Your task to perform on an android device: see creations saved in the google photos Image 0: 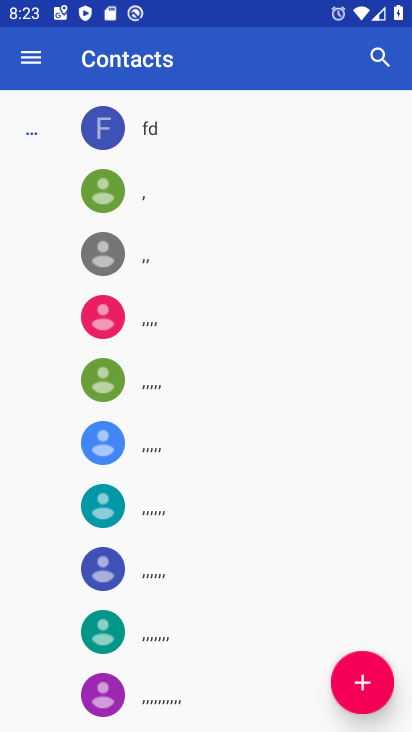
Step 0: press home button
Your task to perform on an android device: see creations saved in the google photos Image 1: 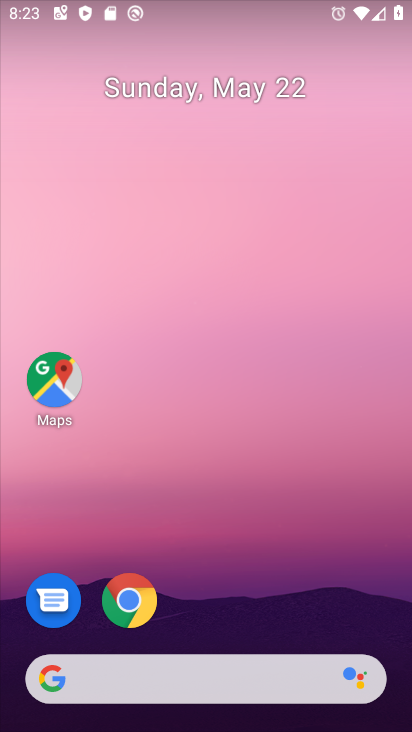
Step 1: drag from (221, 682) to (192, 1)
Your task to perform on an android device: see creations saved in the google photos Image 2: 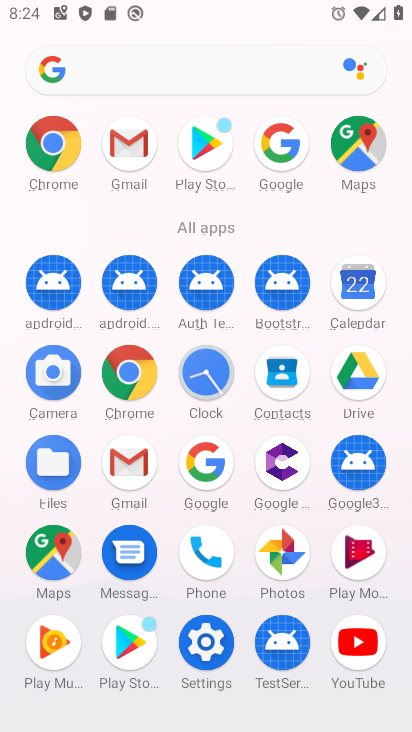
Step 2: click (300, 575)
Your task to perform on an android device: see creations saved in the google photos Image 3: 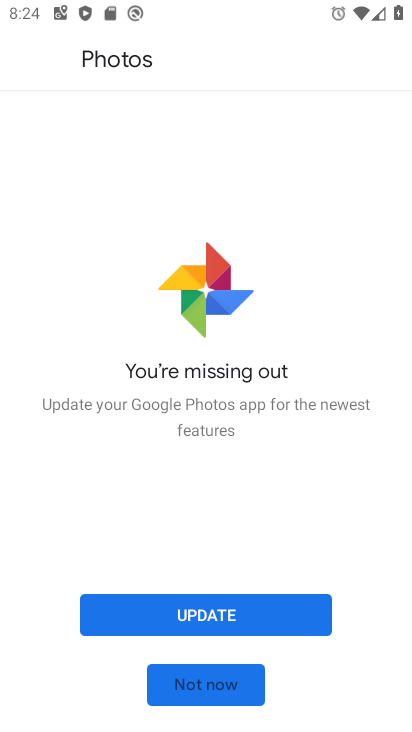
Step 3: click (216, 694)
Your task to perform on an android device: see creations saved in the google photos Image 4: 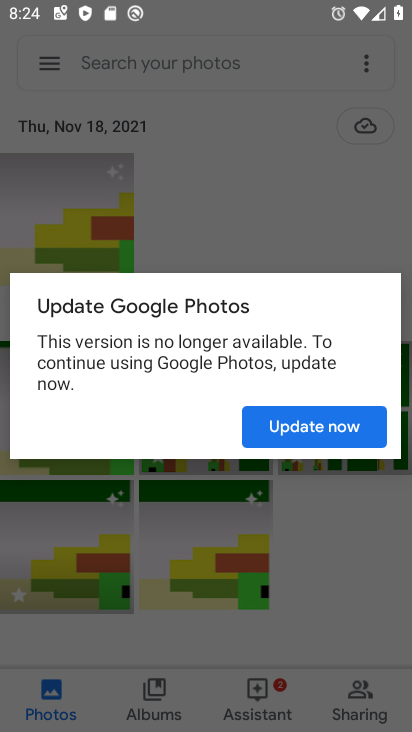
Step 4: task complete